Your task to perform on an android device: clear history in the chrome app Image 0: 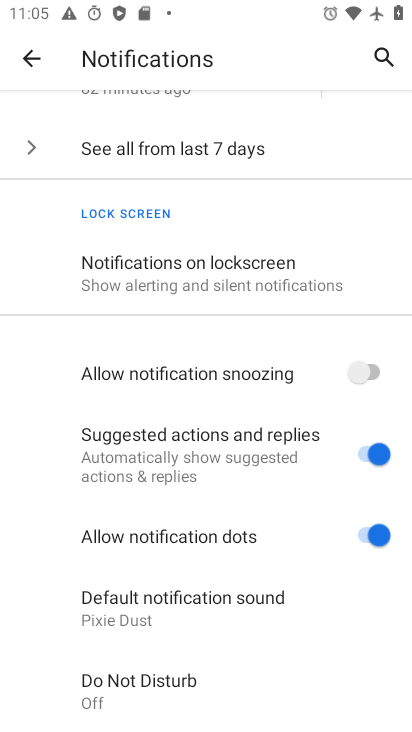
Step 0: press home button
Your task to perform on an android device: clear history in the chrome app Image 1: 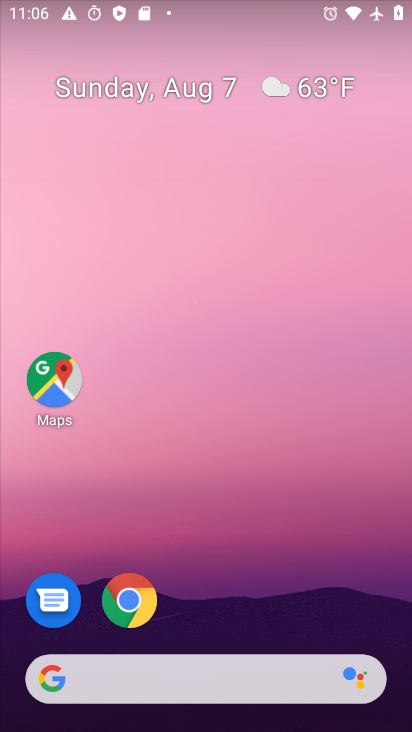
Step 1: drag from (204, 654) to (264, 139)
Your task to perform on an android device: clear history in the chrome app Image 2: 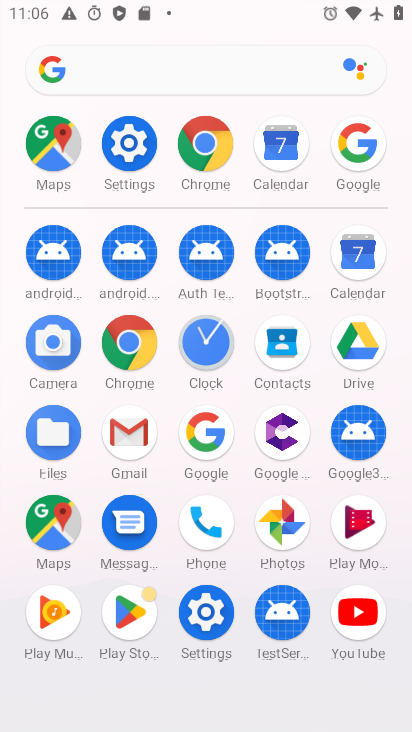
Step 2: click (212, 141)
Your task to perform on an android device: clear history in the chrome app Image 3: 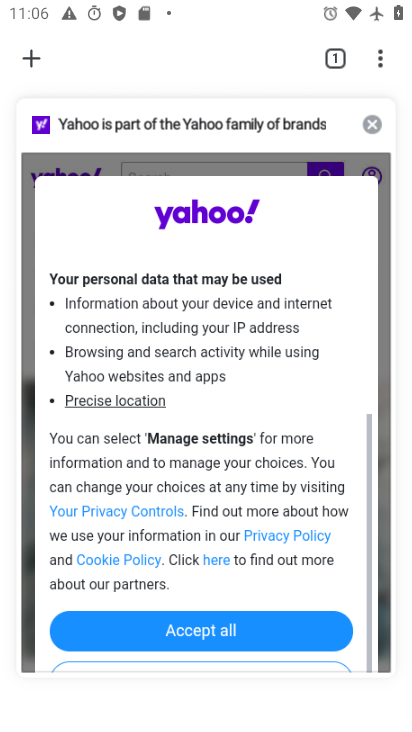
Step 3: click (298, 329)
Your task to perform on an android device: clear history in the chrome app Image 4: 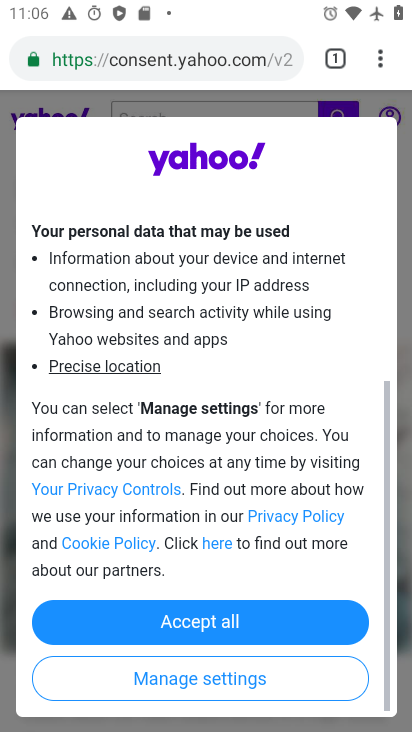
Step 4: click (382, 60)
Your task to perform on an android device: clear history in the chrome app Image 5: 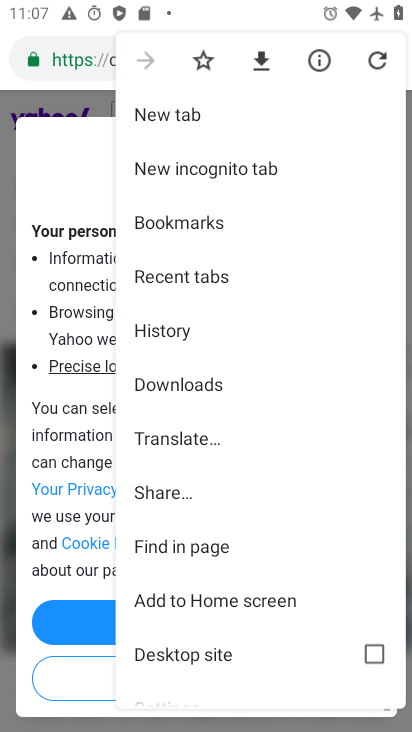
Step 5: drag from (218, 444) to (222, 198)
Your task to perform on an android device: clear history in the chrome app Image 6: 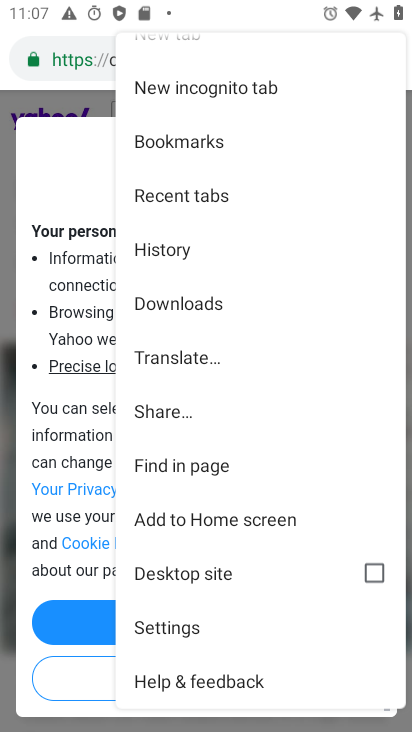
Step 6: click (180, 253)
Your task to perform on an android device: clear history in the chrome app Image 7: 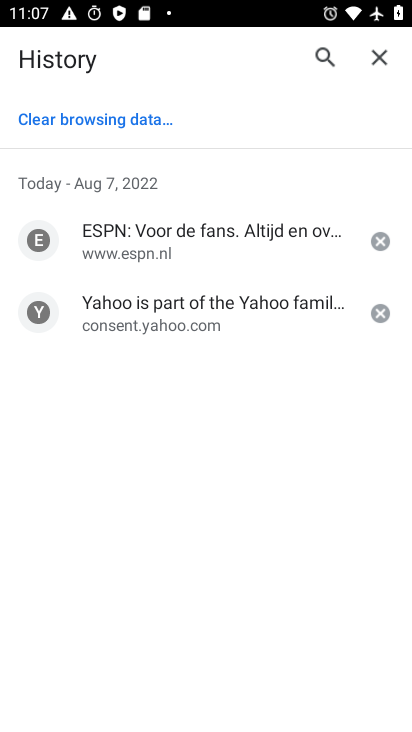
Step 7: click (128, 118)
Your task to perform on an android device: clear history in the chrome app Image 8: 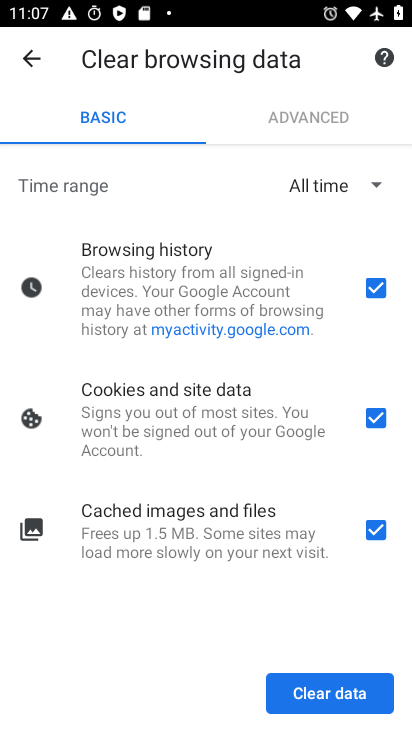
Step 8: click (372, 528)
Your task to perform on an android device: clear history in the chrome app Image 9: 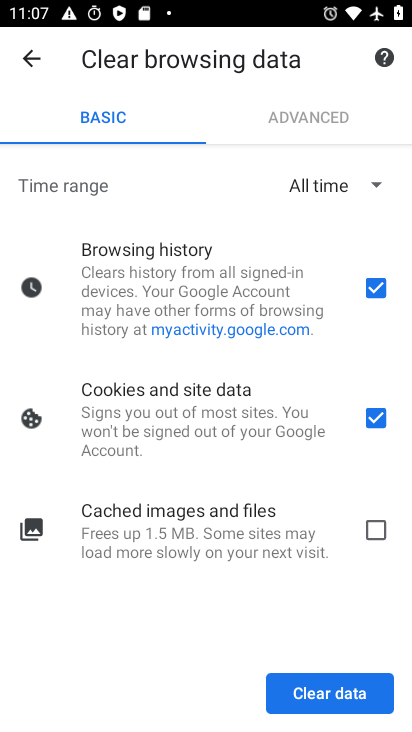
Step 9: click (375, 417)
Your task to perform on an android device: clear history in the chrome app Image 10: 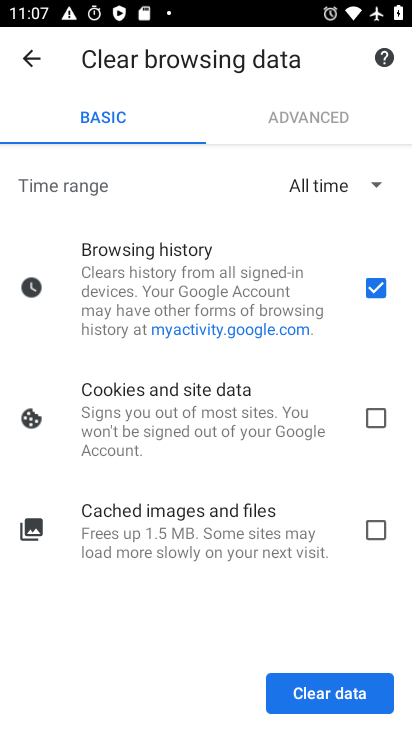
Step 10: click (330, 687)
Your task to perform on an android device: clear history in the chrome app Image 11: 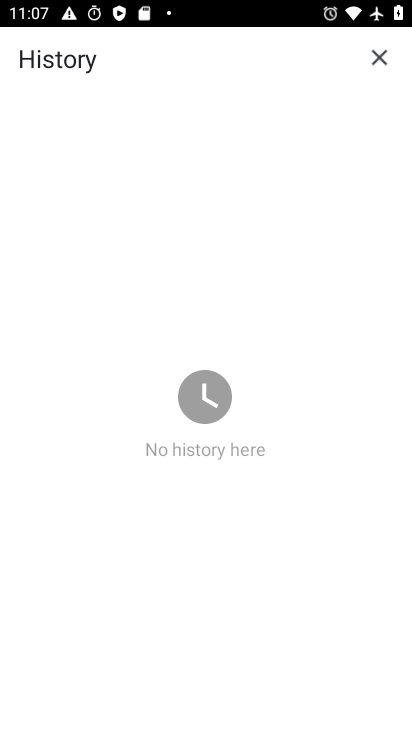
Step 11: task complete